Your task to perform on an android device: Open calendar and show me the fourth week of next month Image 0: 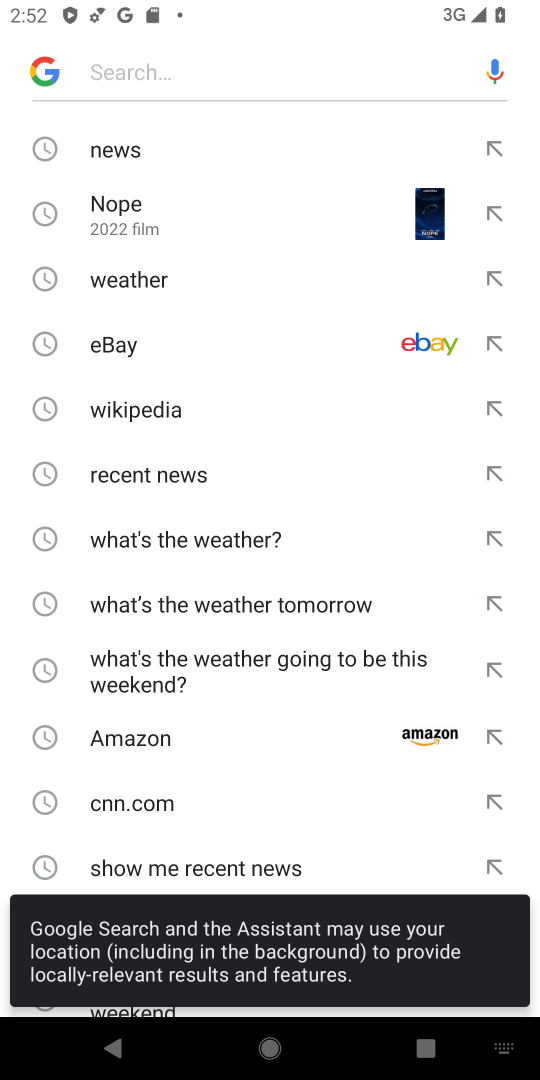
Step 0: press home button
Your task to perform on an android device: Open calendar and show me the fourth week of next month Image 1: 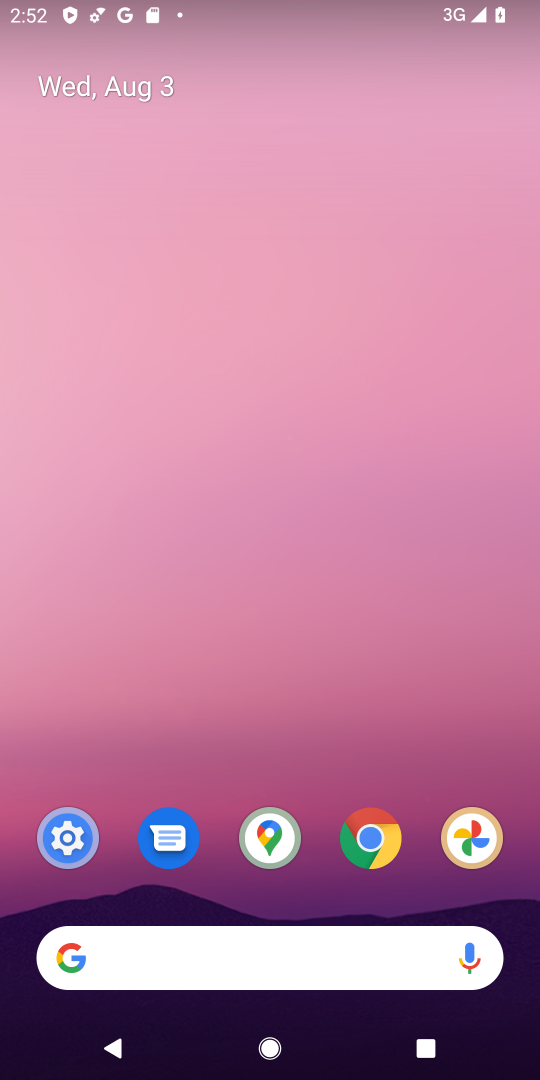
Step 1: drag from (222, 910) to (155, 223)
Your task to perform on an android device: Open calendar and show me the fourth week of next month Image 2: 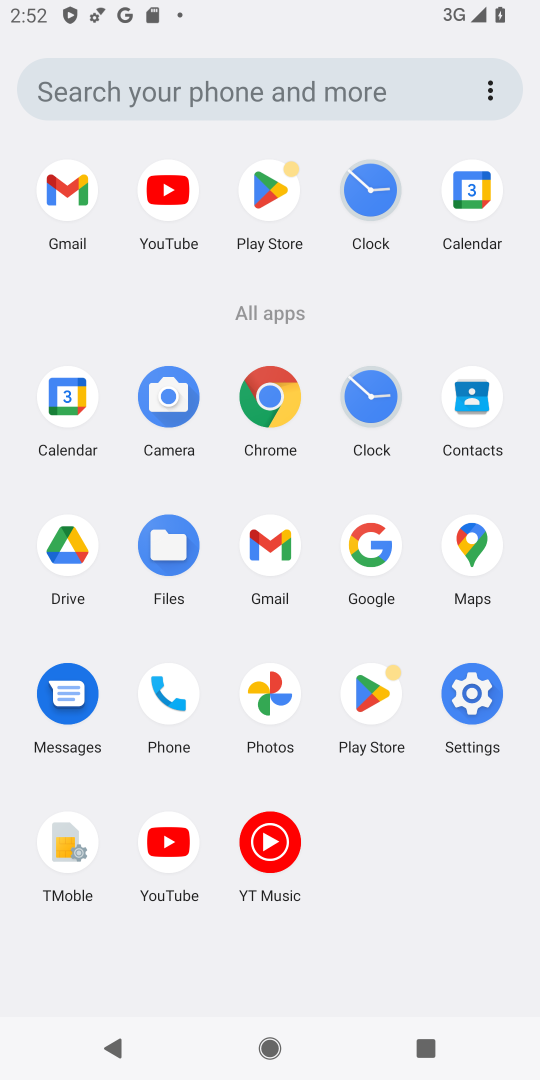
Step 2: click (477, 202)
Your task to perform on an android device: Open calendar and show me the fourth week of next month Image 3: 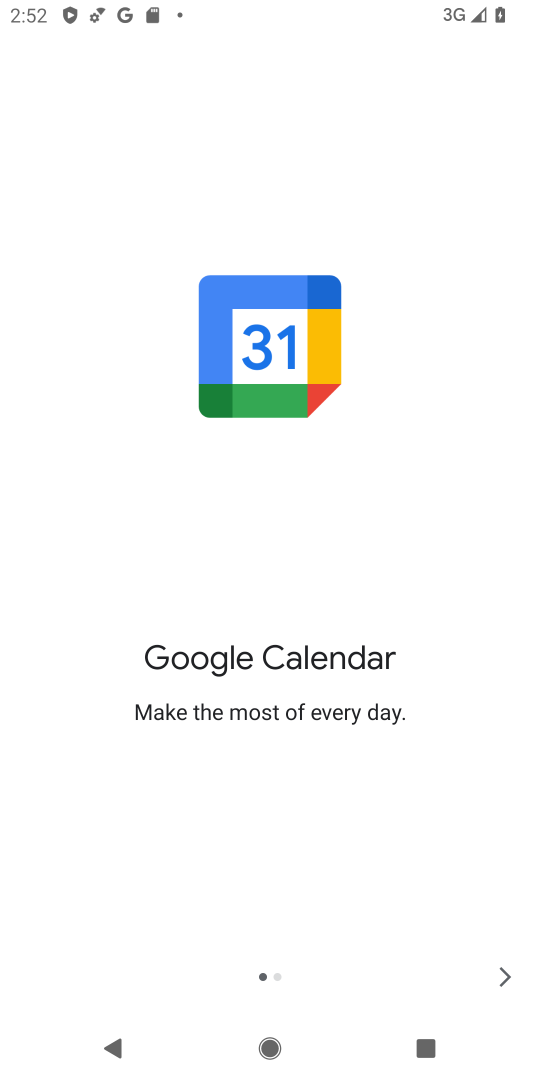
Step 3: click (505, 992)
Your task to perform on an android device: Open calendar and show me the fourth week of next month Image 4: 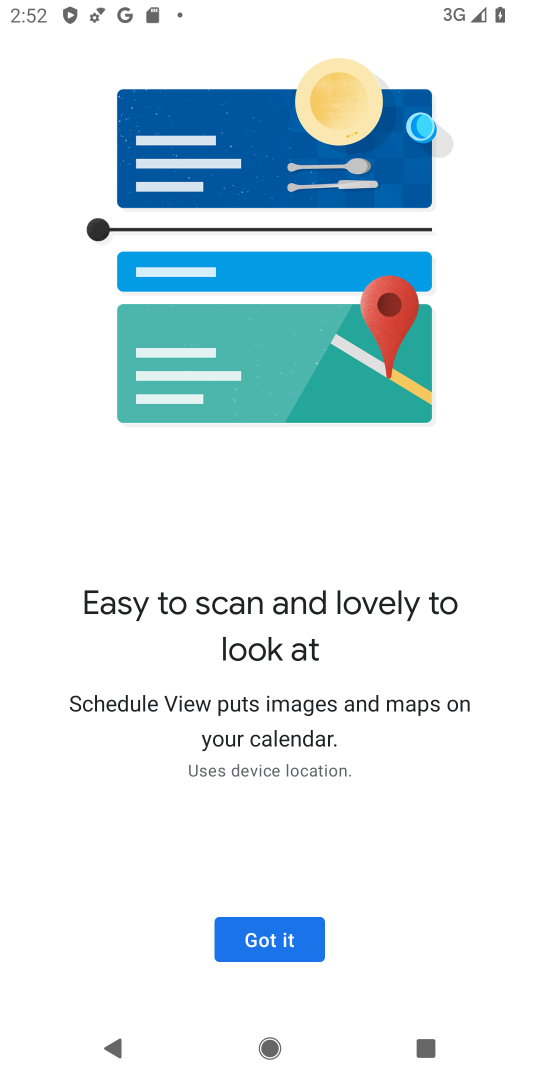
Step 4: click (505, 992)
Your task to perform on an android device: Open calendar and show me the fourth week of next month Image 5: 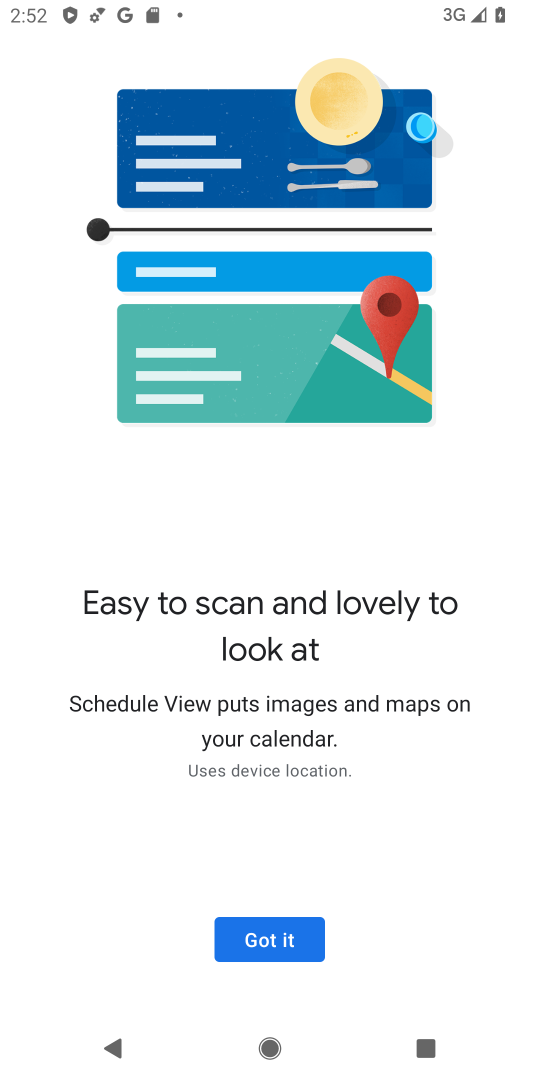
Step 5: click (264, 946)
Your task to perform on an android device: Open calendar and show me the fourth week of next month Image 6: 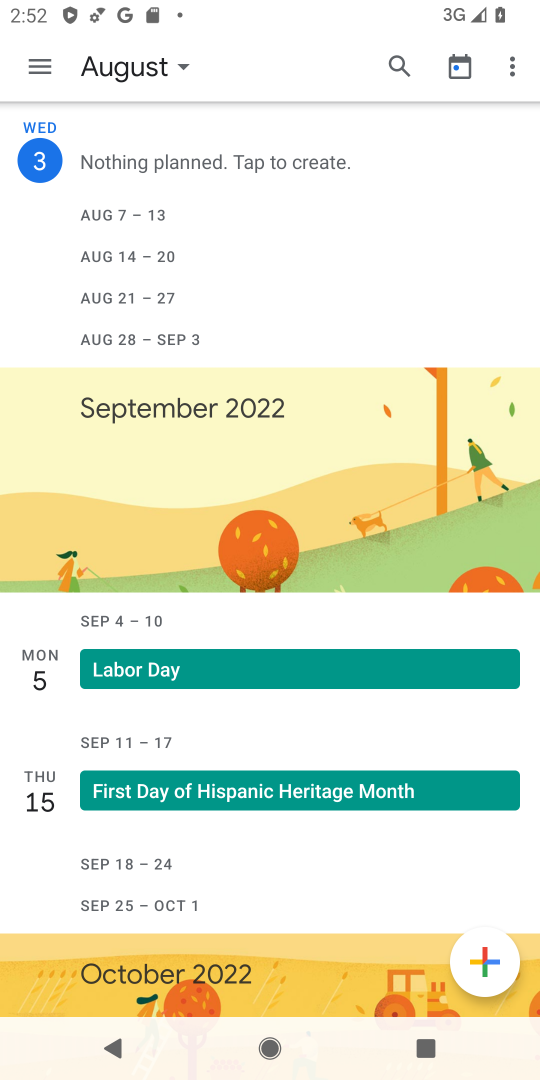
Step 6: click (171, 62)
Your task to perform on an android device: Open calendar and show me the fourth week of next month Image 7: 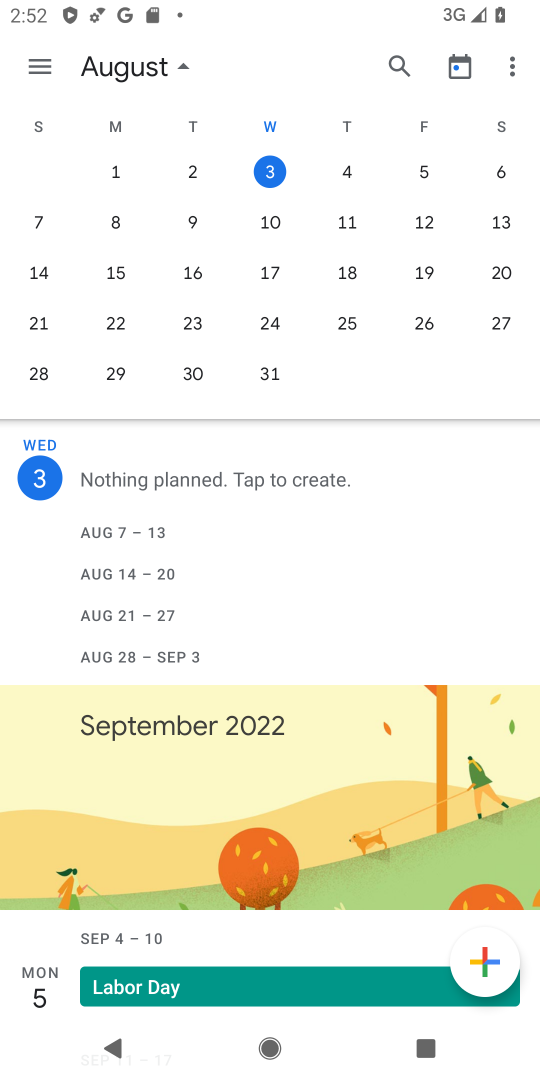
Step 7: drag from (485, 213) to (35, 258)
Your task to perform on an android device: Open calendar and show me the fourth week of next month Image 8: 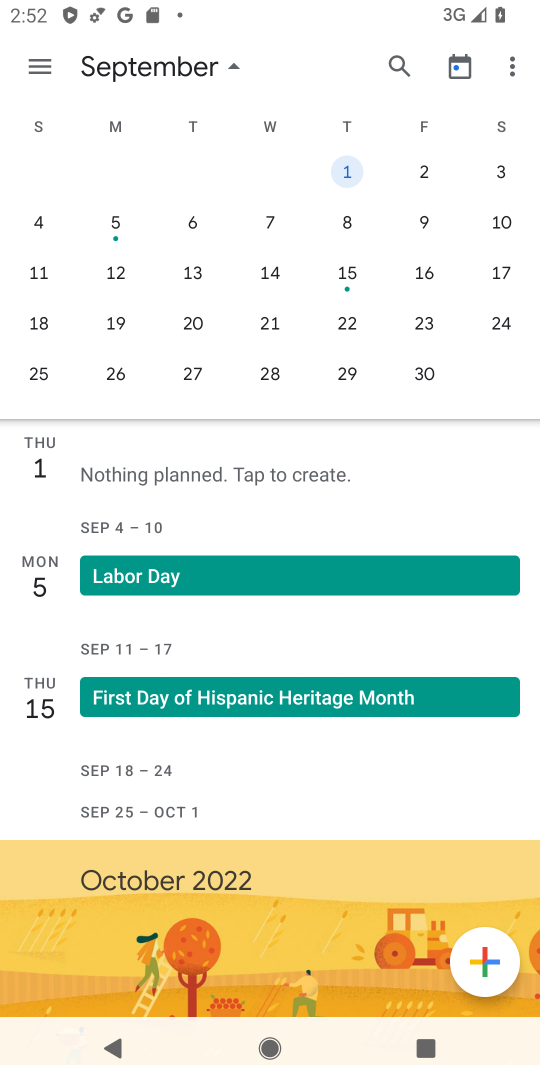
Step 8: click (49, 328)
Your task to perform on an android device: Open calendar and show me the fourth week of next month Image 9: 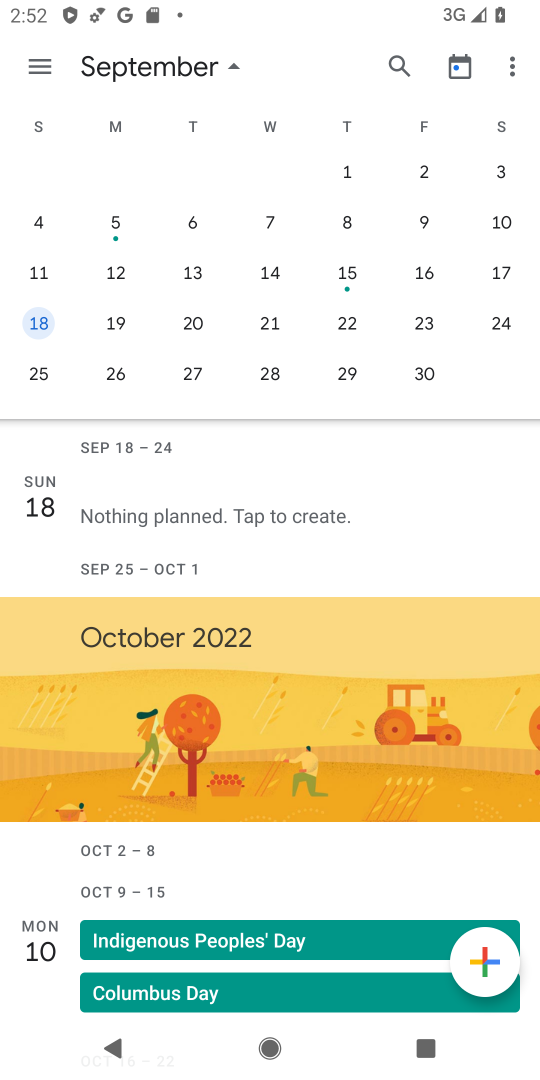
Step 9: task complete